Your task to perform on an android device: Open Youtube and go to the subscriptions tab Image 0: 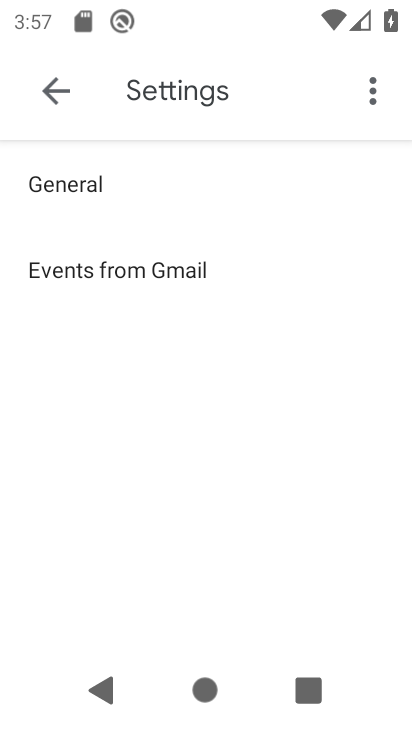
Step 0: press home button
Your task to perform on an android device: Open Youtube and go to the subscriptions tab Image 1: 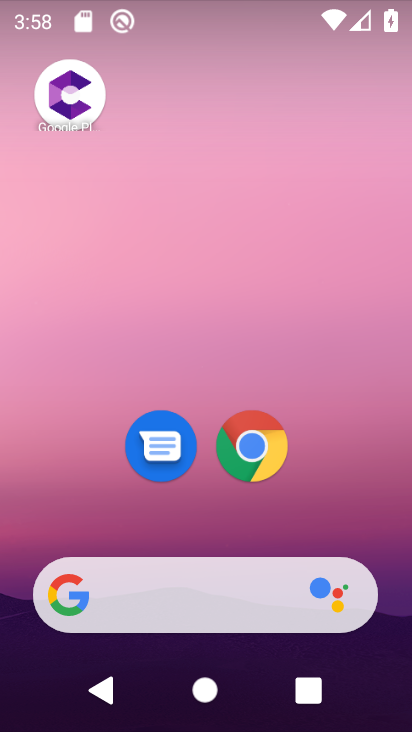
Step 1: drag from (63, 507) to (179, 125)
Your task to perform on an android device: Open Youtube and go to the subscriptions tab Image 2: 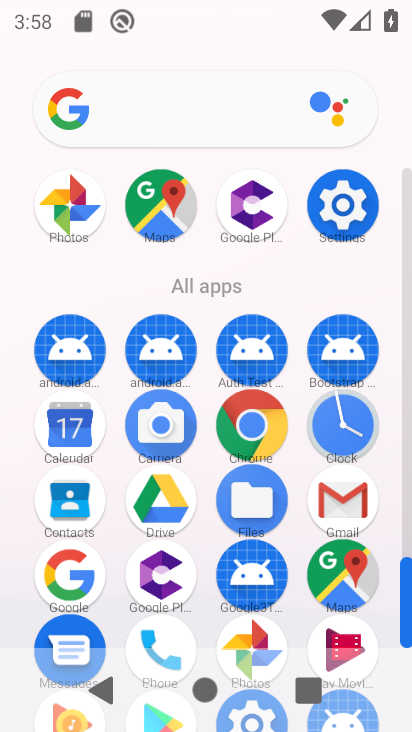
Step 2: drag from (154, 575) to (193, 348)
Your task to perform on an android device: Open Youtube and go to the subscriptions tab Image 3: 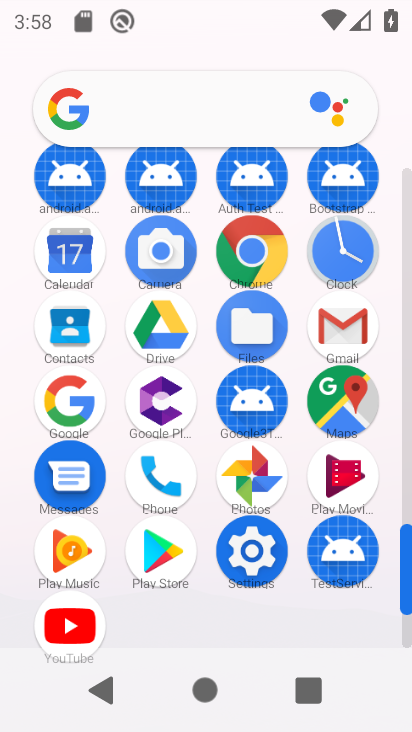
Step 3: click (79, 636)
Your task to perform on an android device: Open Youtube and go to the subscriptions tab Image 4: 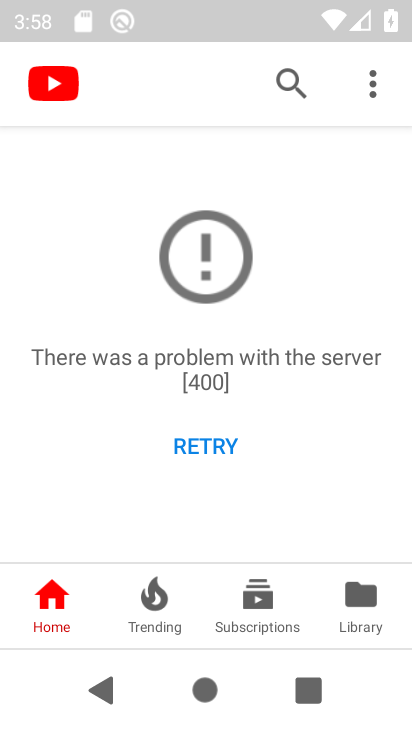
Step 4: click (256, 613)
Your task to perform on an android device: Open Youtube and go to the subscriptions tab Image 5: 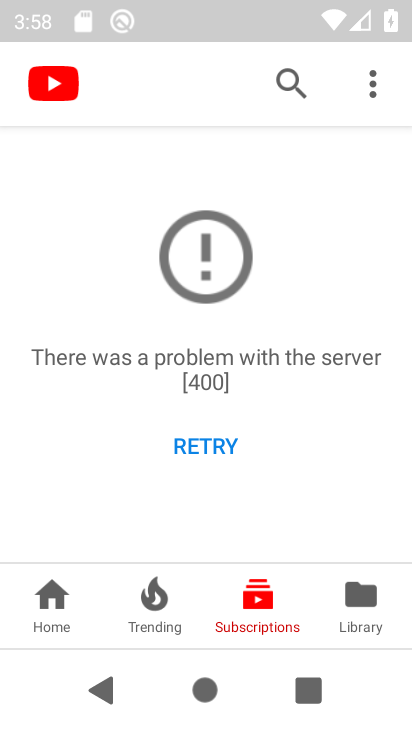
Step 5: task complete